Your task to perform on an android device: Open Google Maps Image 0: 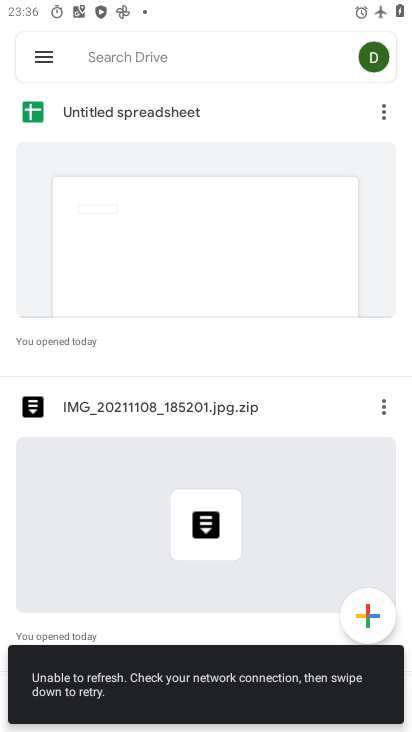
Step 0: press home button
Your task to perform on an android device: Open Google Maps Image 1: 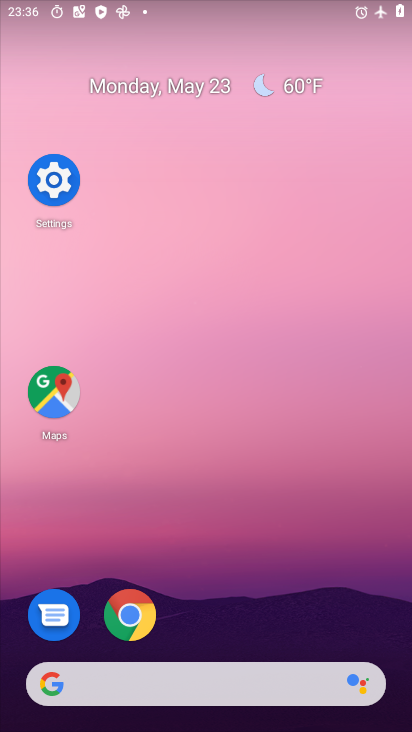
Step 1: click (57, 383)
Your task to perform on an android device: Open Google Maps Image 2: 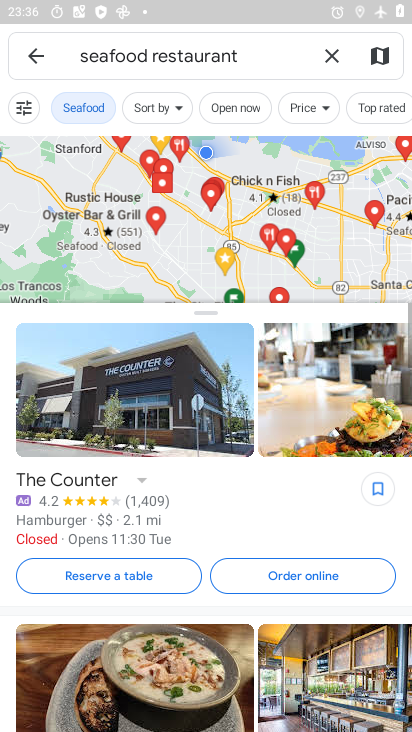
Step 2: task complete